Your task to perform on an android device: Open battery settings Image 0: 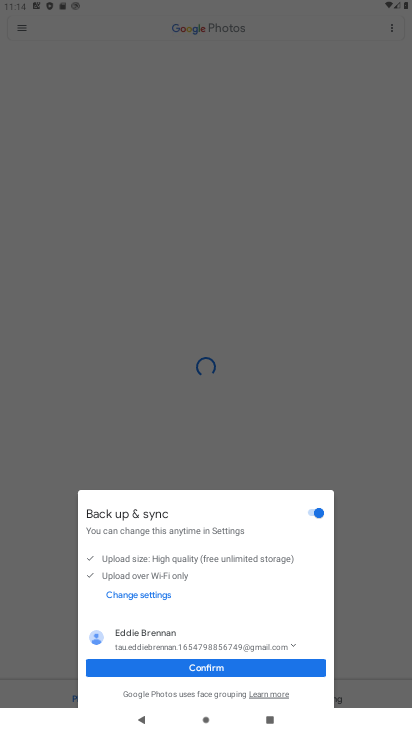
Step 0: press home button
Your task to perform on an android device: Open battery settings Image 1: 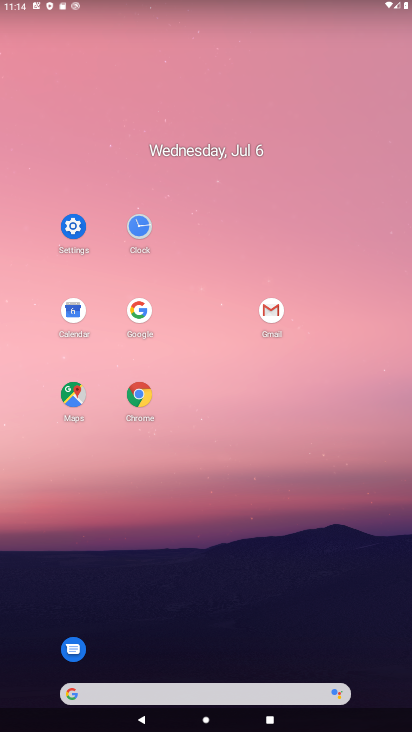
Step 1: click (65, 229)
Your task to perform on an android device: Open battery settings Image 2: 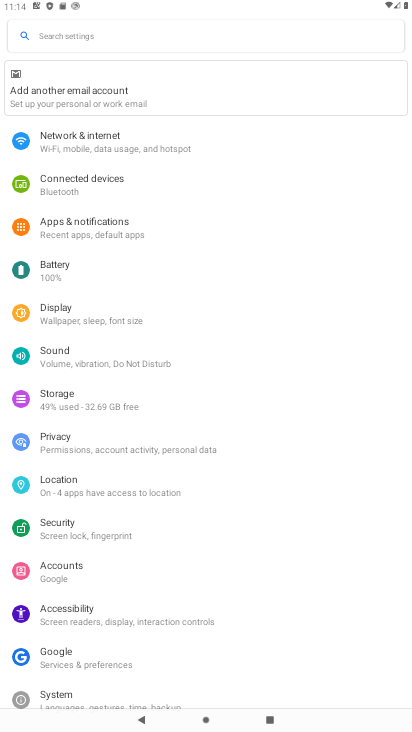
Step 2: click (126, 271)
Your task to perform on an android device: Open battery settings Image 3: 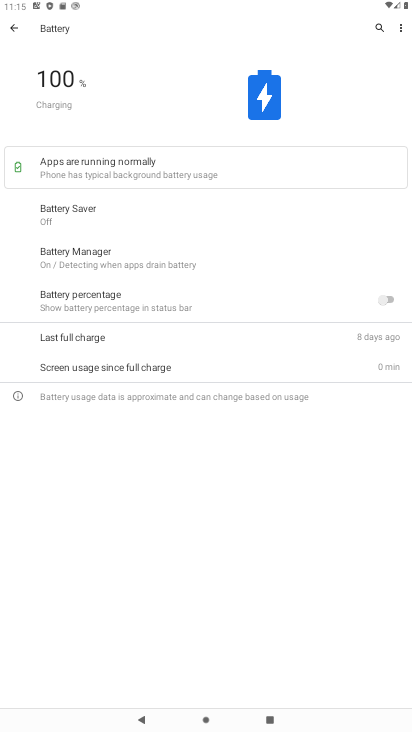
Step 3: task complete